Your task to perform on an android device: add a contact in the contacts app Image 0: 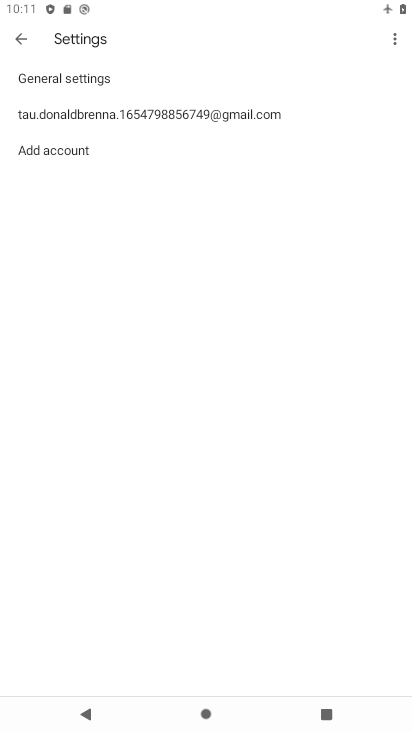
Step 0: press home button
Your task to perform on an android device: add a contact in the contacts app Image 1: 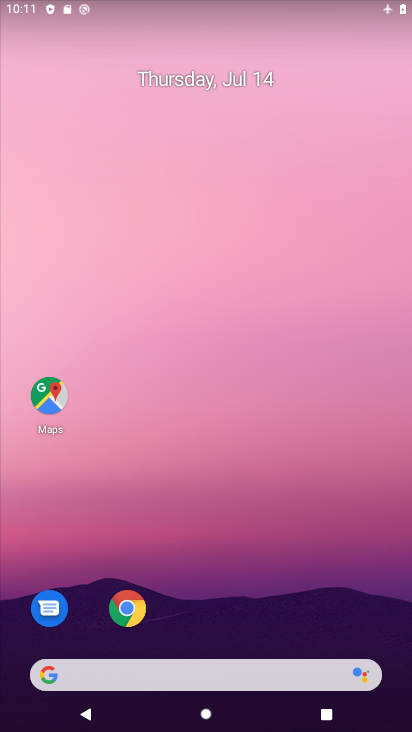
Step 1: drag from (185, 627) to (216, 22)
Your task to perform on an android device: add a contact in the contacts app Image 2: 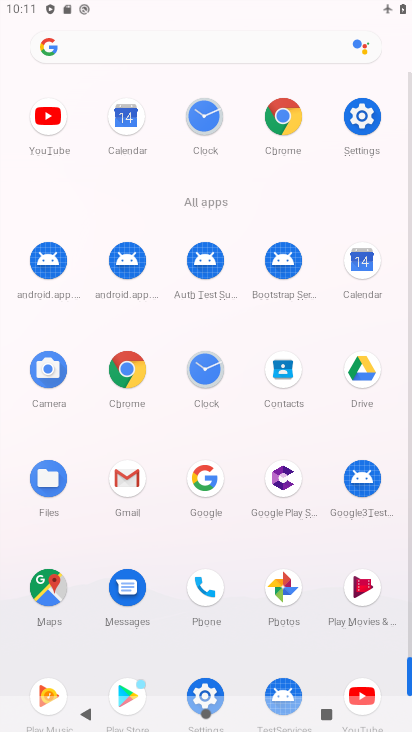
Step 2: click (280, 391)
Your task to perform on an android device: add a contact in the contacts app Image 3: 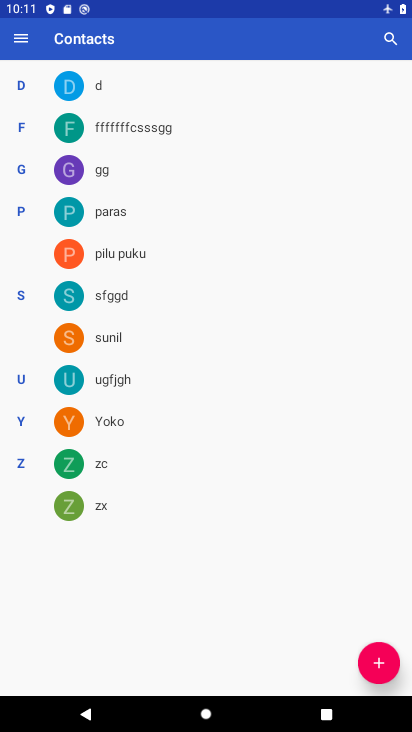
Step 3: click (390, 666)
Your task to perform on an android device: add a contact in the contacts app Image 4: 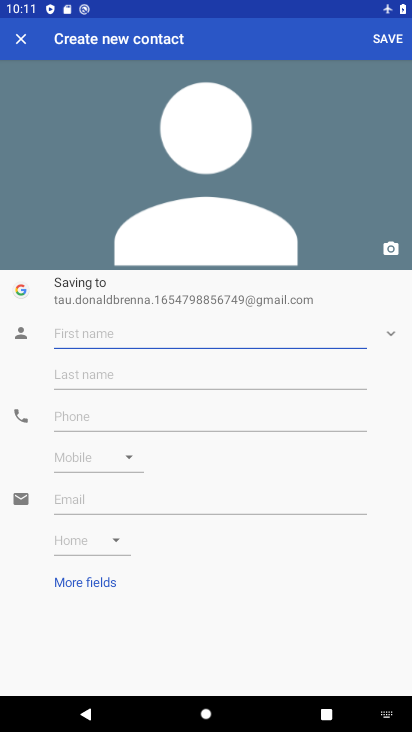
Step 4: type ""
Your task to perform on an android device: add a contact in the contacts app Image 5: 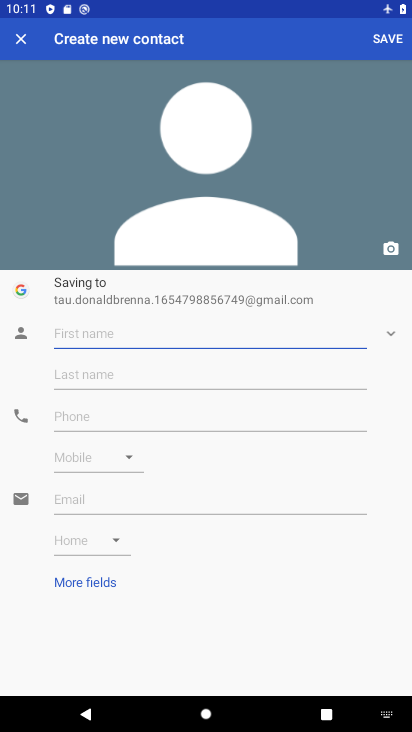
Step 5: type "Ajay"
Your task to perform on an android device: add a contact in the contacts app Image 6: 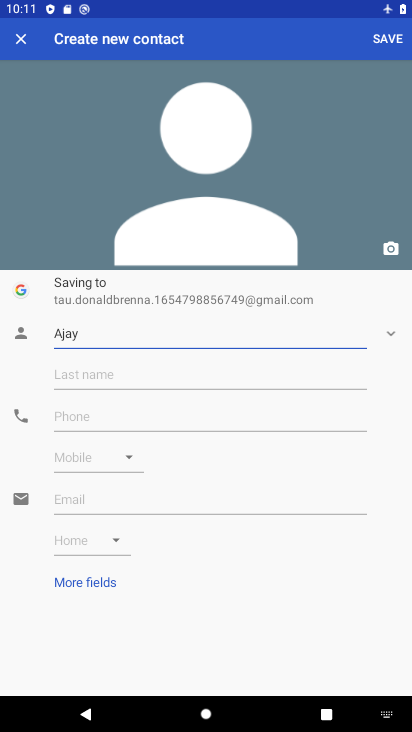
Step 6: click (376, 34)
Your task to perform on an android device: add a contact in the contacts app Image 7: 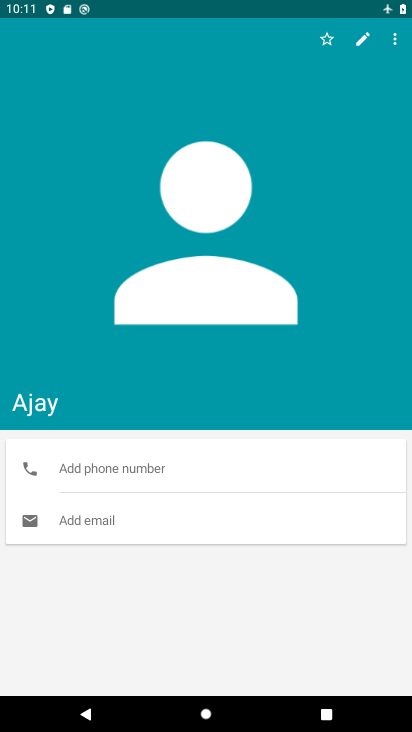
Step 7: task complete